Your task to perform on an android device: refresh tabs in the chrome app Image 0: 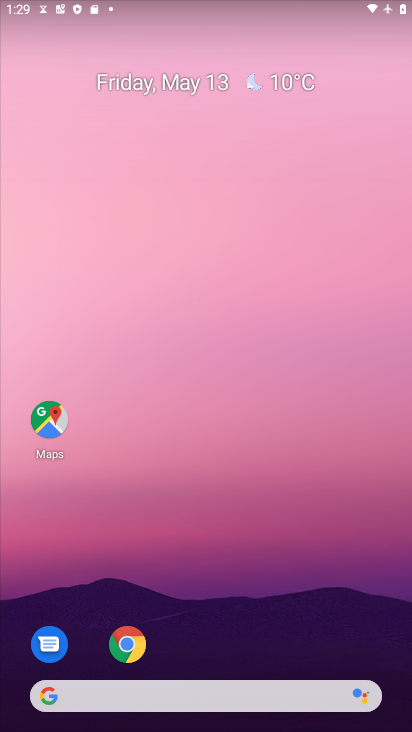
Step 0: click (130, 645)
Your task to perform on an android device: refresh tabs in the chrome app Image 1: 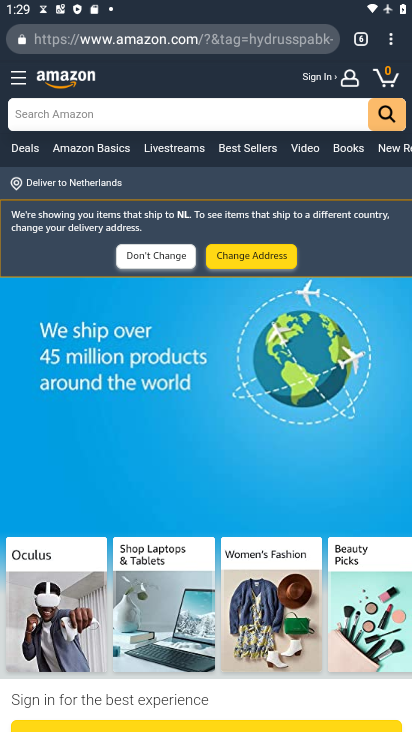
Step 1: click (393, 43)
Your task to perform on an android device: refresh tabs in the chrome app Image 2: 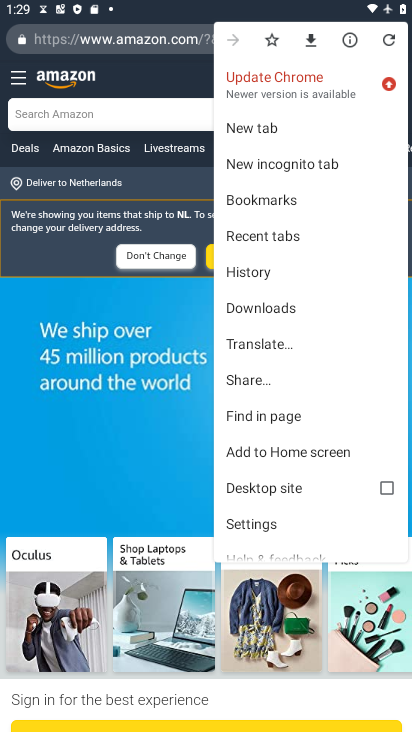
Step 2: click (383, 34)
Your task to perform on an android device: refresh tabs in the chrome app Image 3: 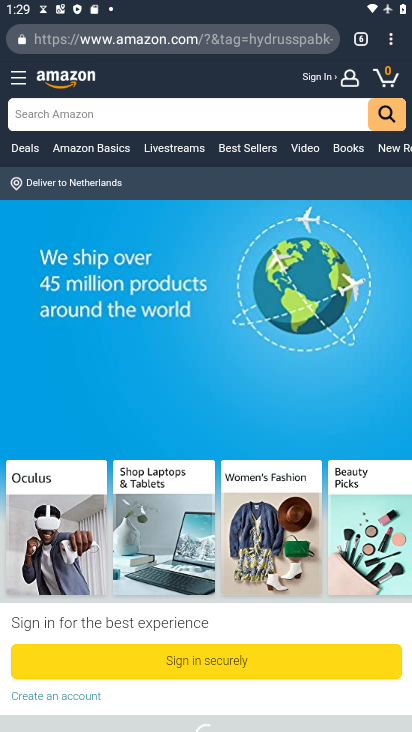
Step 3: task complete